Your task to perform on an android device: What's the weather going to be this weekend? Image 0: 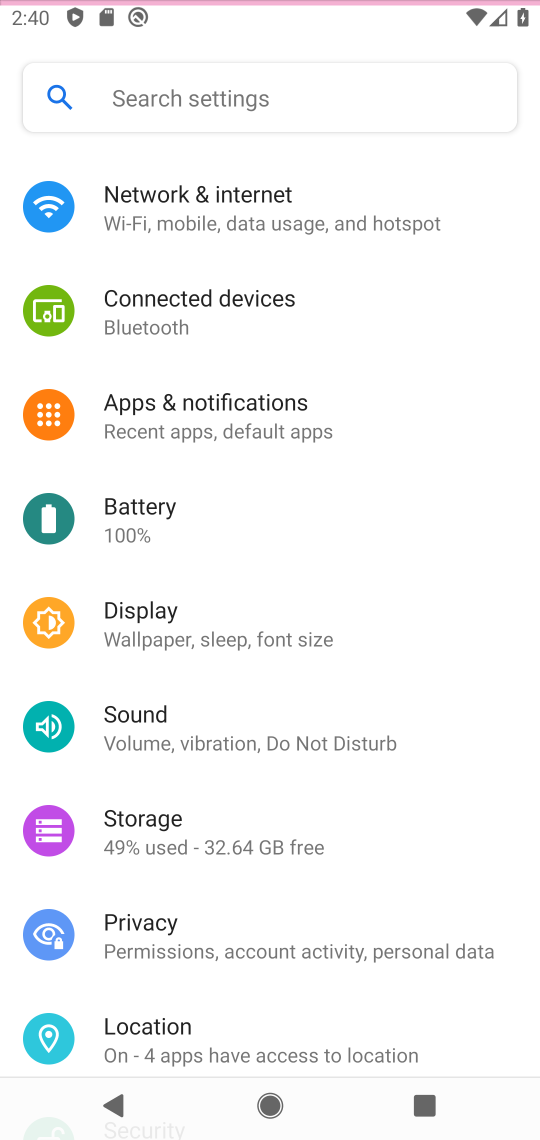
Step 0: click (42, 137)
Your task to perform on an android device: What's the weather going to be this weekend? Image 1: 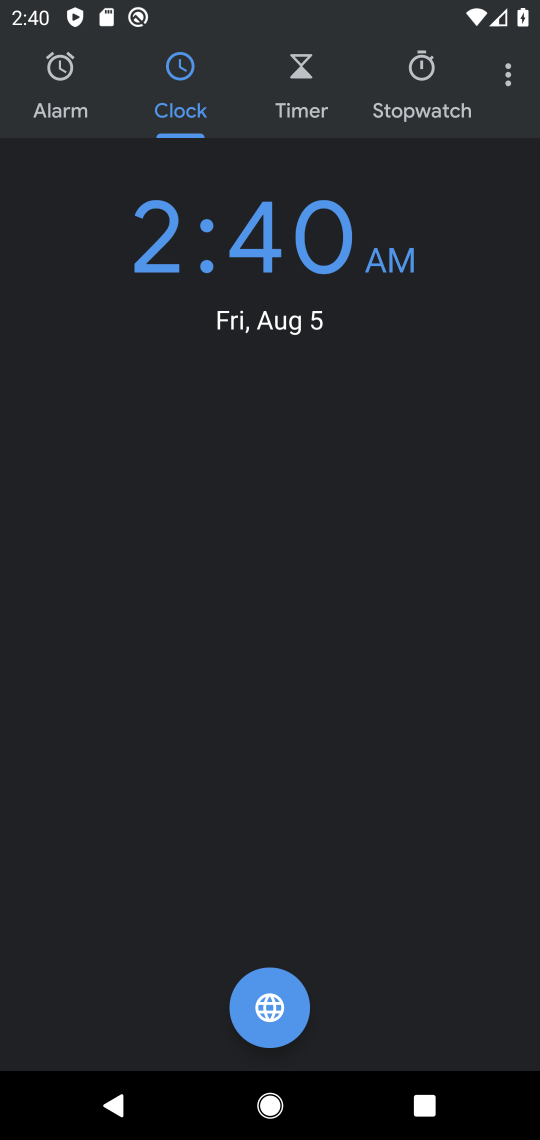
Step 1: press home button
Your task to perform on an android device: What's the weather going to be this weekend? Image 2: 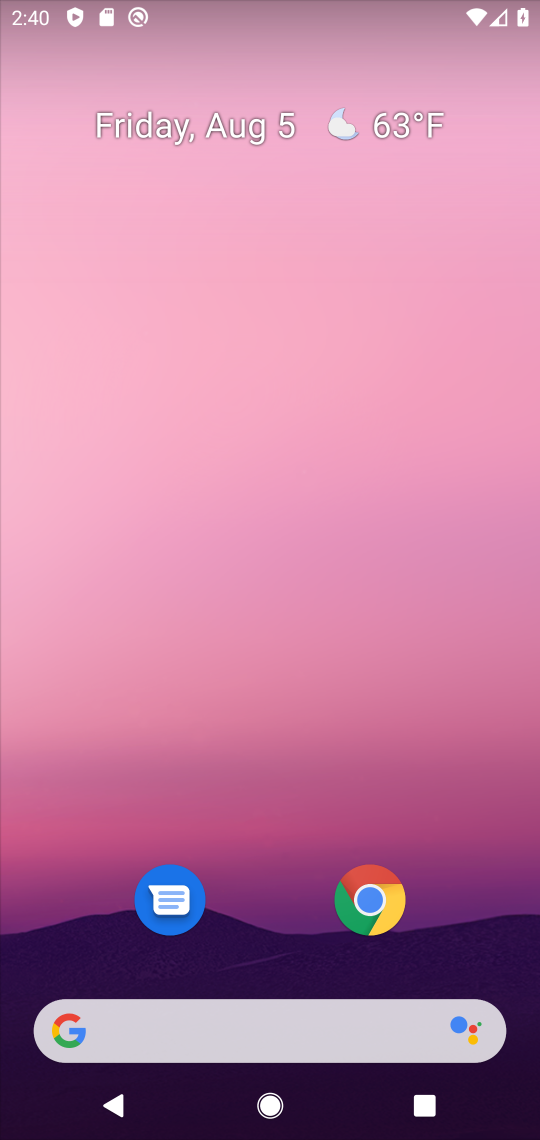
Step 2: click (264, 1011)
Your task to perform on an android device: What's the weather going to be this weekend? Image 3: 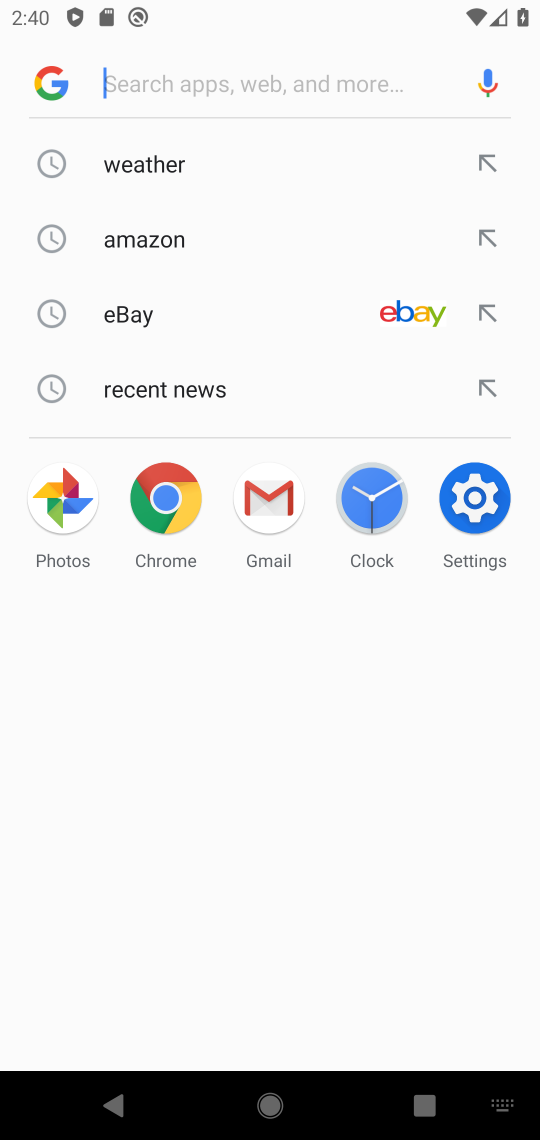
Step 3: click (254, 182)
Your task to perform on an android device: What's the weather going to be this weekend? Image 4: 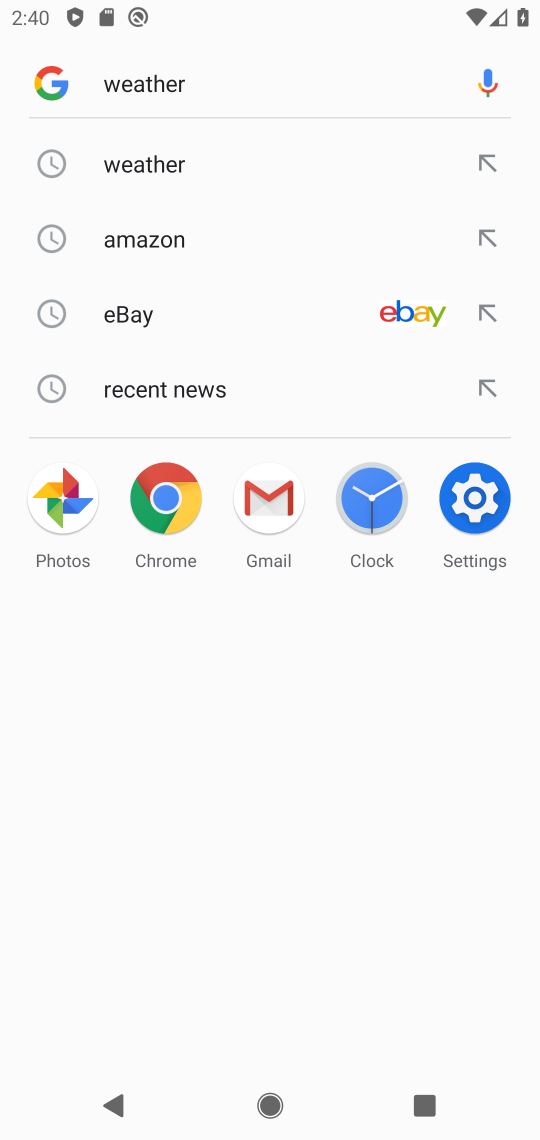
Step 4: task complete